Your task to perform on an android device: check data usage Image 0: 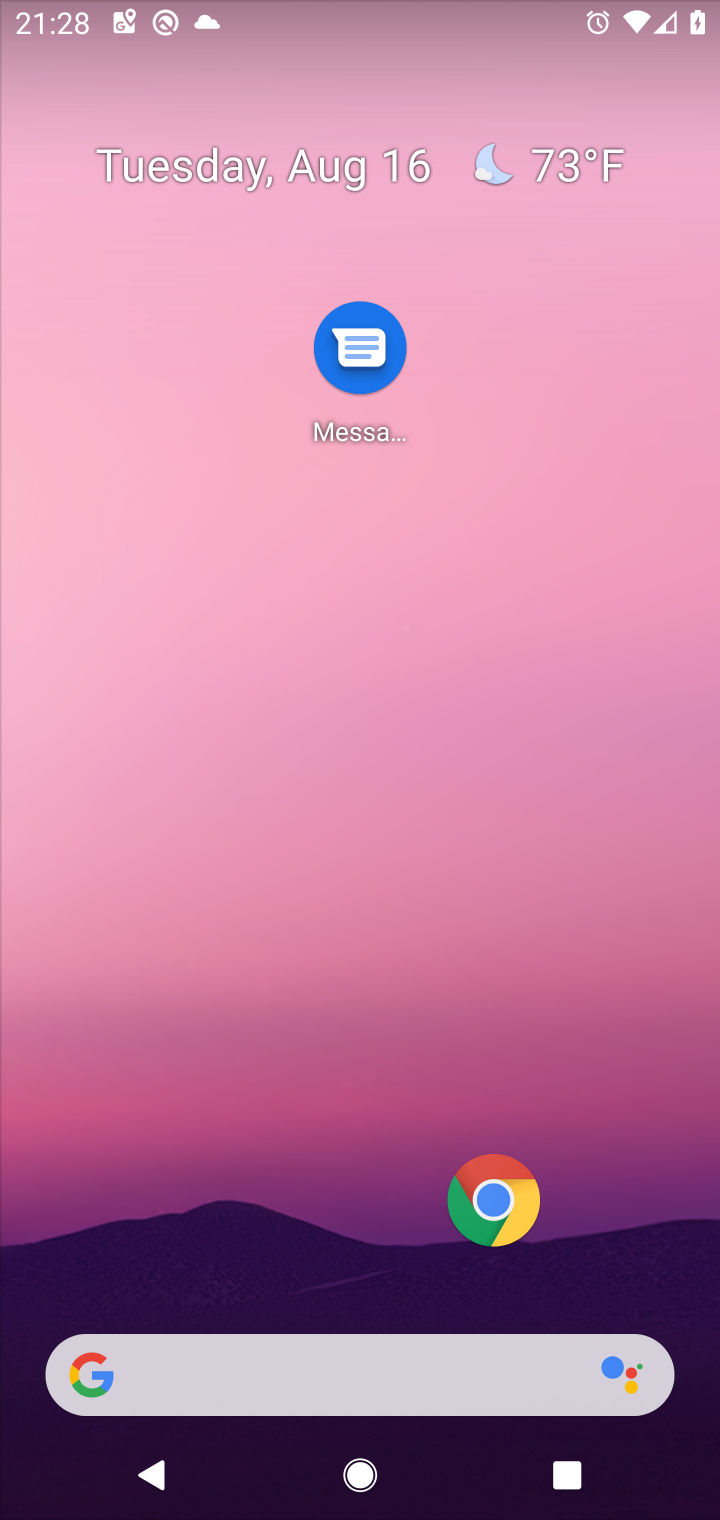
Step 0: drag from (46, 1450) to (365, 679)
Your task to perform on an android device: check data usage Image 1: 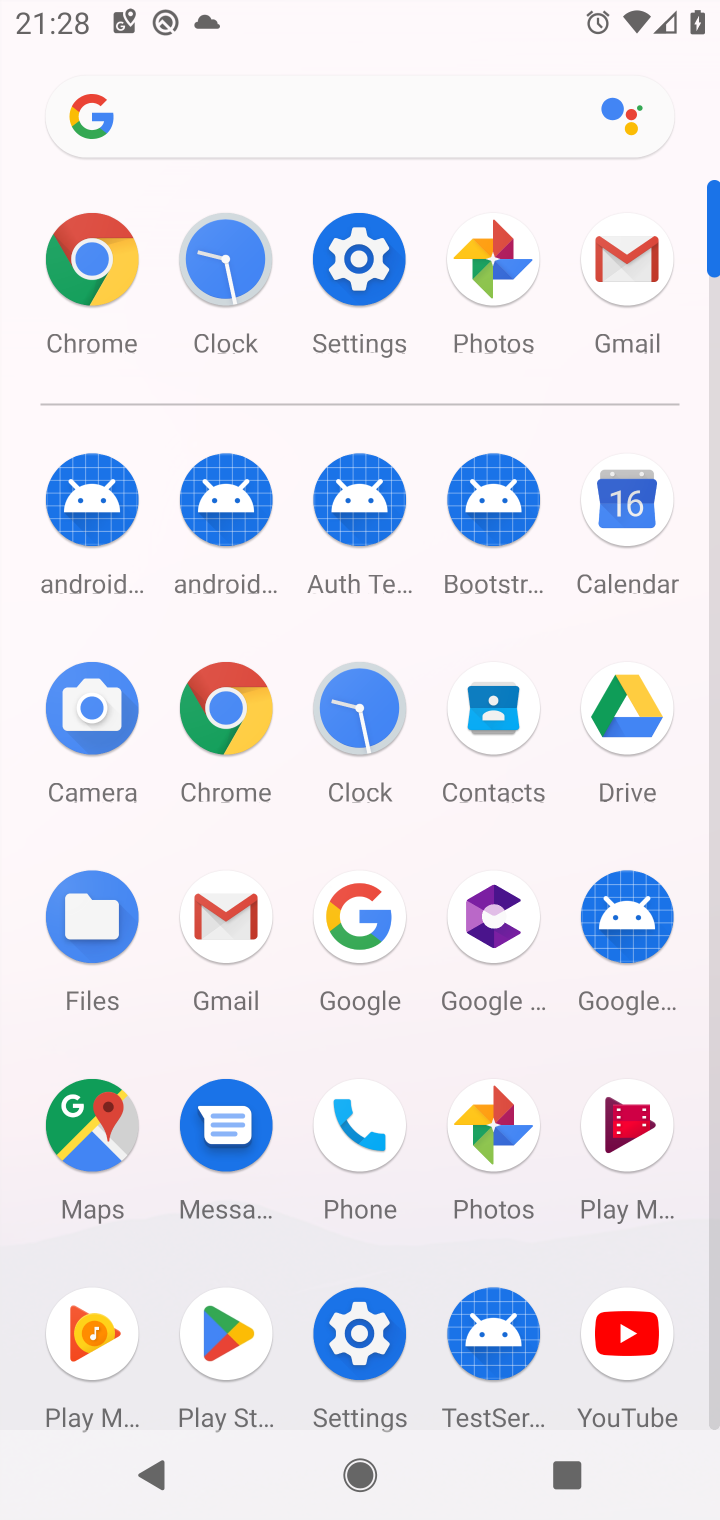
Step 1: click (375, 258)
Your task to perform on an android device: check data usage Image 2: 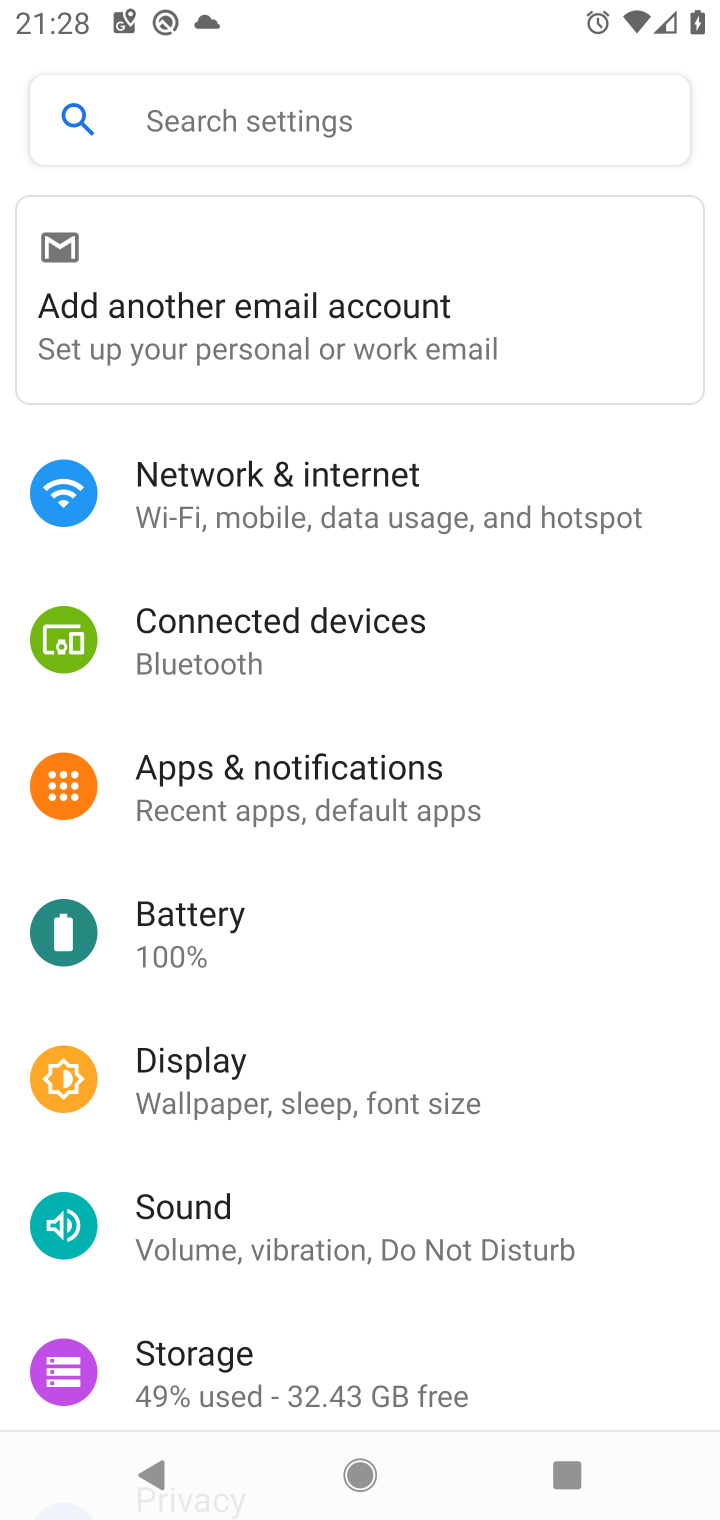
Step 2: click (287, 499)
Your task to perform on an android device: check data usage Image 3: 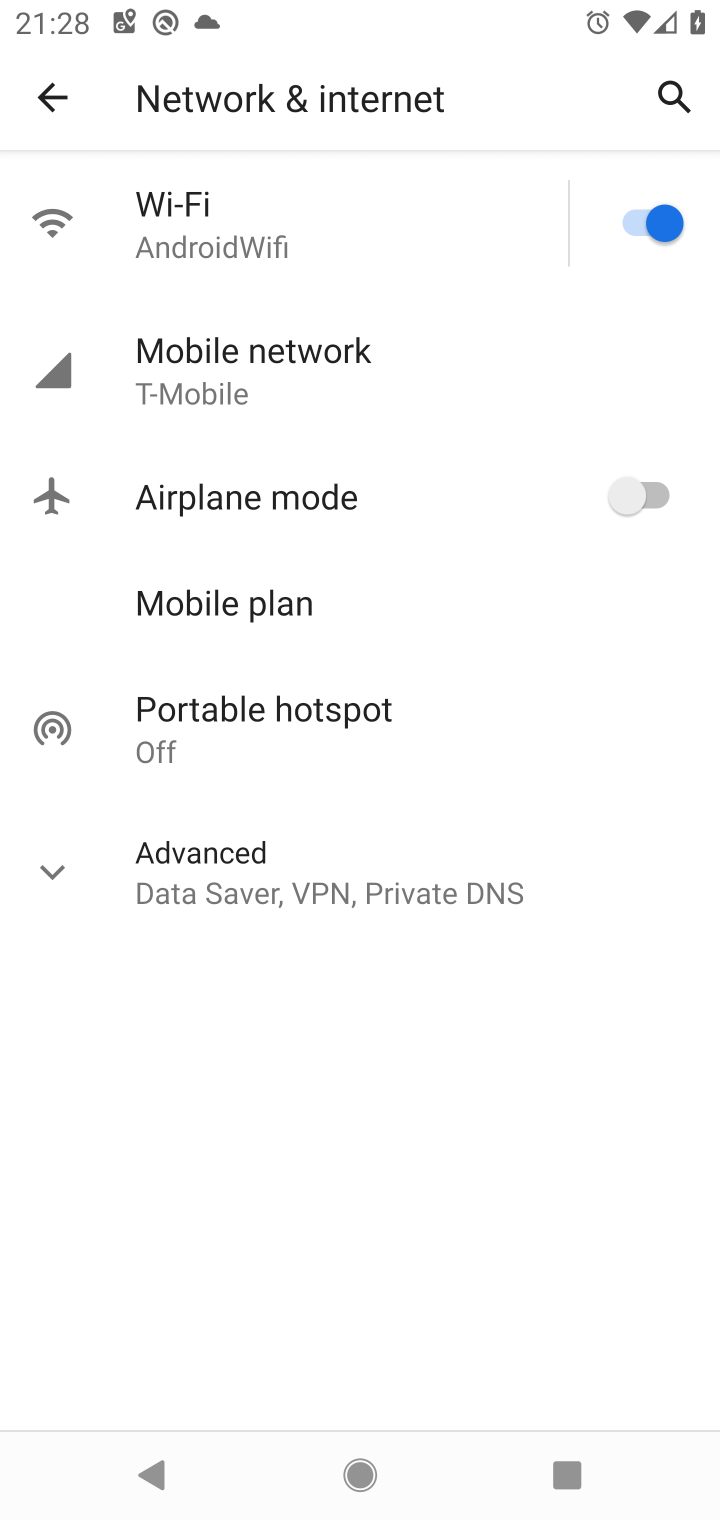
Step 3: click (237, 352)
Your task to perform on an android device: check data usage Image 4: 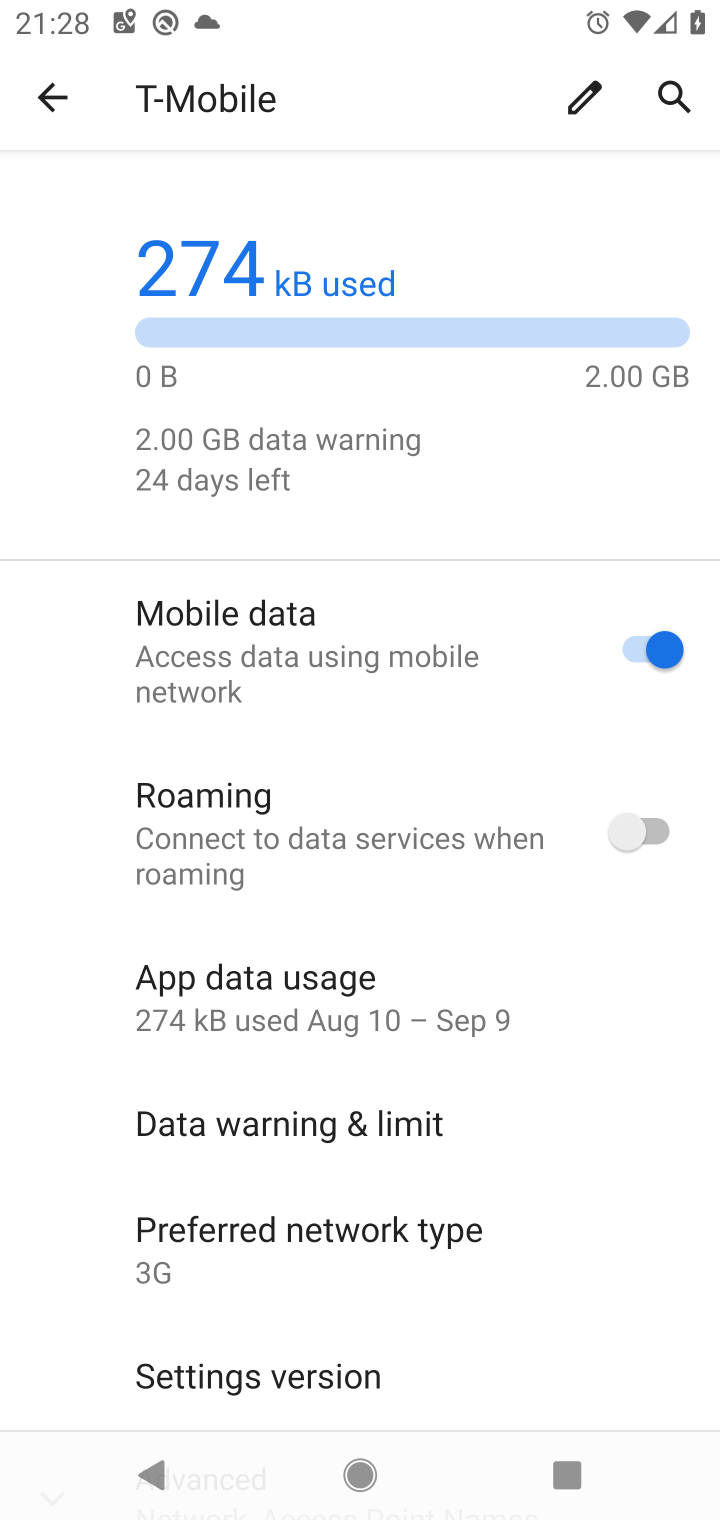
Step 4: task complete